Your task to perform on an android device: Open settings on Google Maps Image 0: 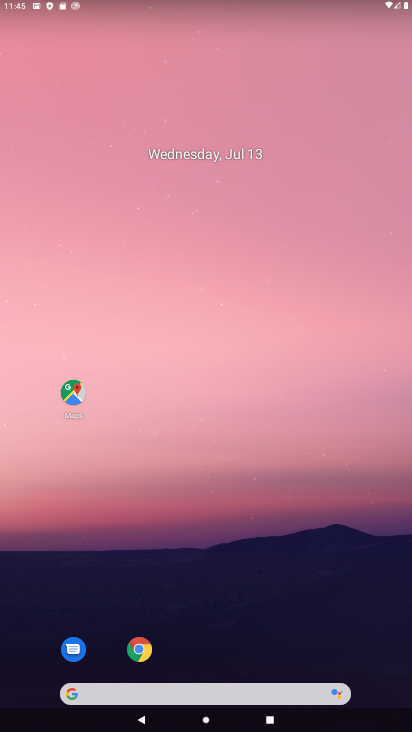
Step 0: click (75, 399)
Your task to perform on an android device: Open settings on Google Maps Image 1: 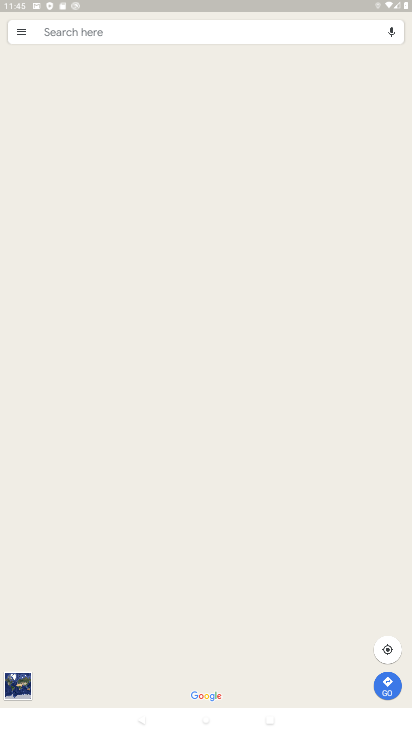
Step 1: click (18, 31)
Your task to perform on an android device: Open settings on Google Maps Image 2: 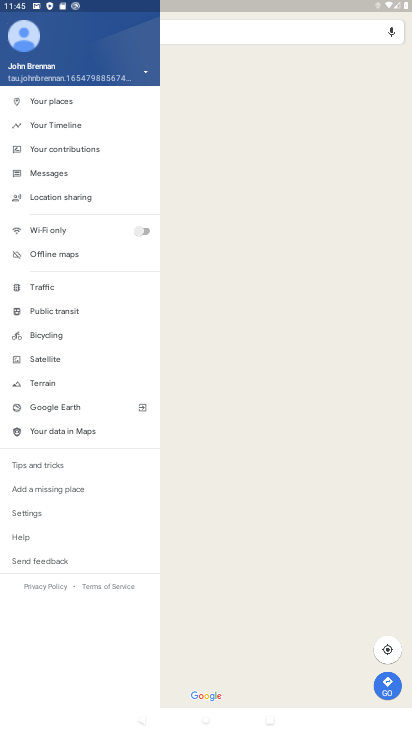
Step 2: click (10, 513)
Your task to perform on an android device: Open settings on Google Maps Image 3: 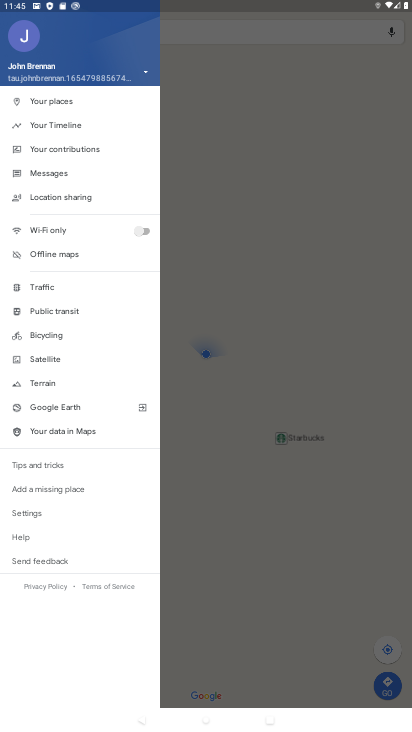
Step 3: click (42, 514)
Your task to perform on an android device: Open settings on Google Maps Image 4: 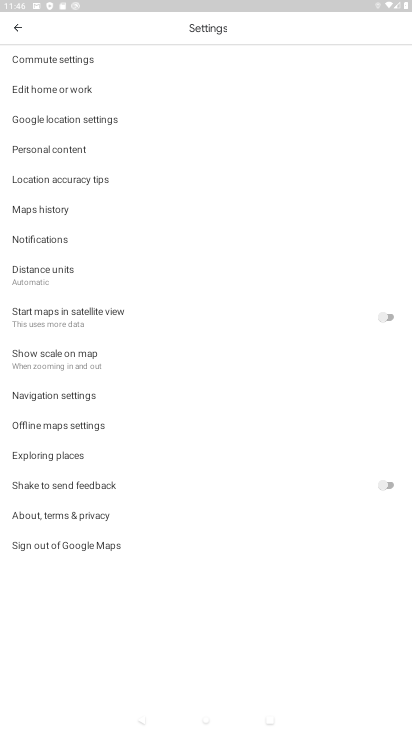
Step 4: task complete